Your task to perform on an android device: toggle location history Image 0: 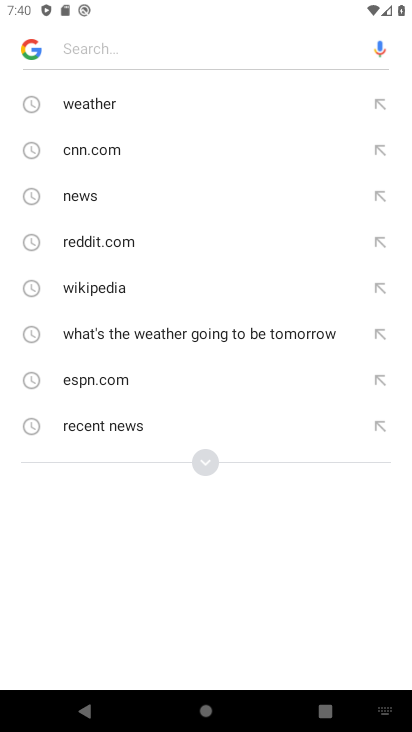
Step 0: press home button
Your task to perform on an android device: toggle location history Image 1: 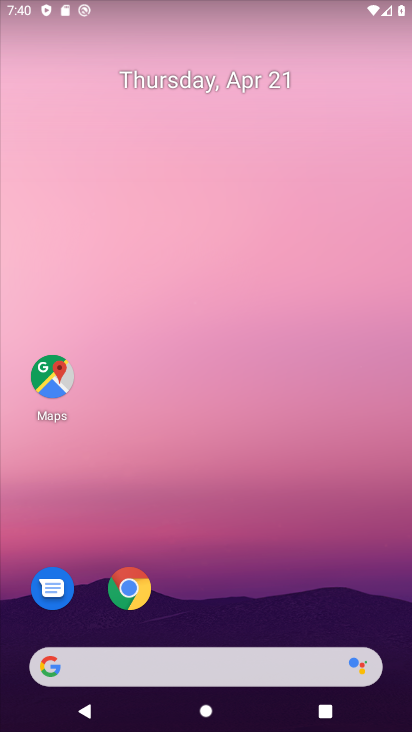
Step 1: drag from (341, 610) to (253, 1)
Your task to perform on an android device: toggle location history Image 2: 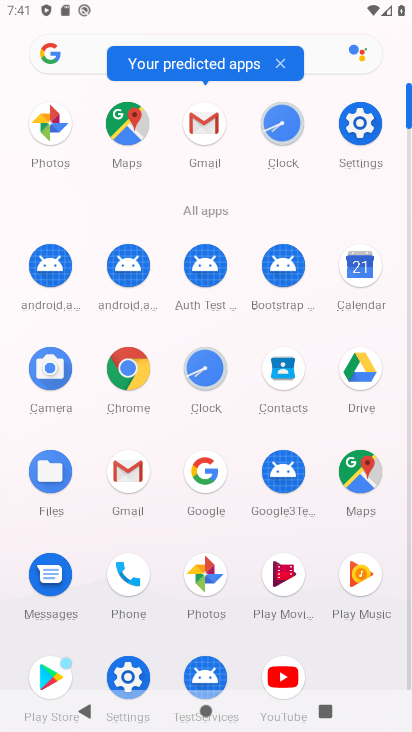
Step 2: click (121, 678)
Your task to perform on an android device: toggle location history Image 3: 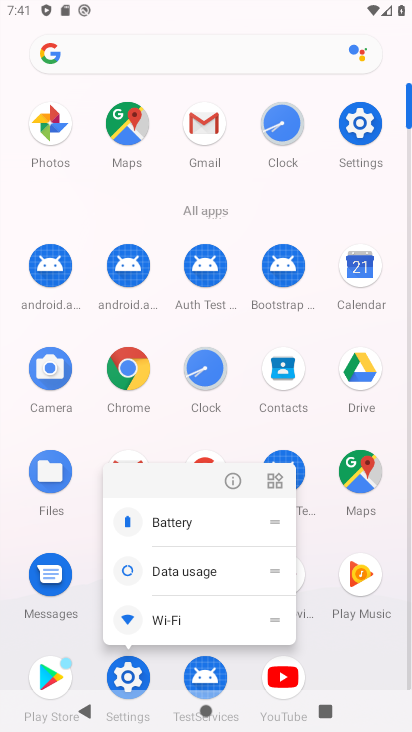
Step 3: click (128, 670)
Your task to perform on an android device: toggle location history Image 4: 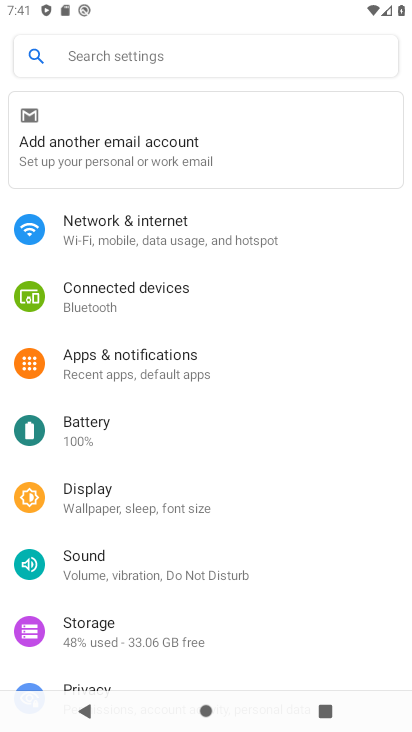
Step 4: drag from (224, 483) to (209, 190)
Your task to perform on an android device: toggle location history Image 5: 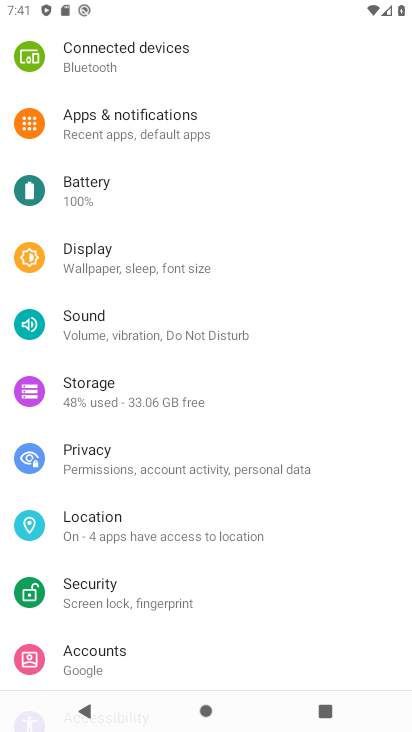
Step 5: click (111, 533)
Your task to perform on an android device: toggle location history Image 6: 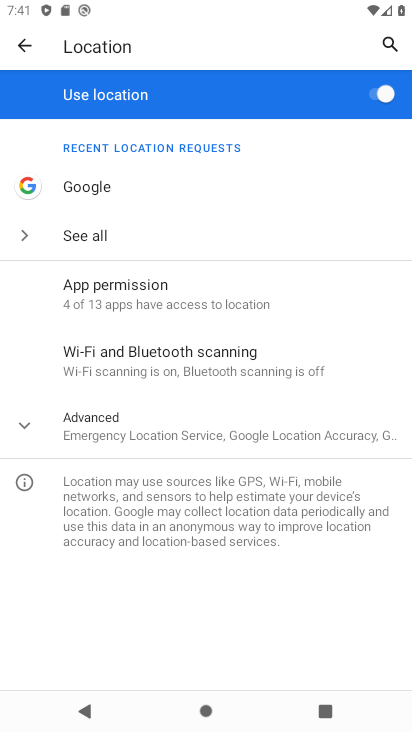
Step 6: click (114, 440)
Your task to perform on an android device: toggle location history Image 7: 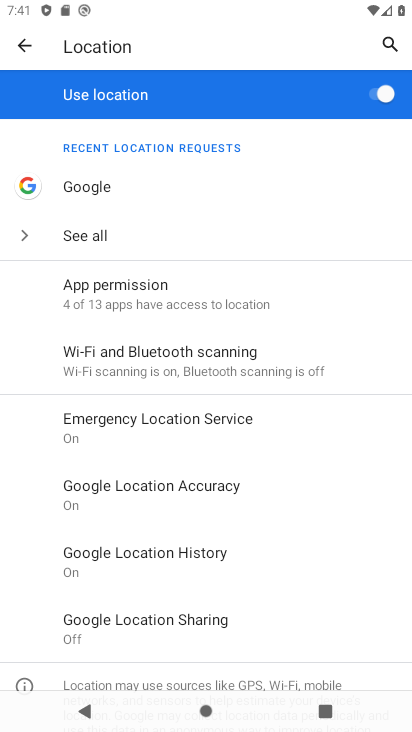
Step 7: click (169, 556)
Your task to perform on an android device: toggle location history Image 8: 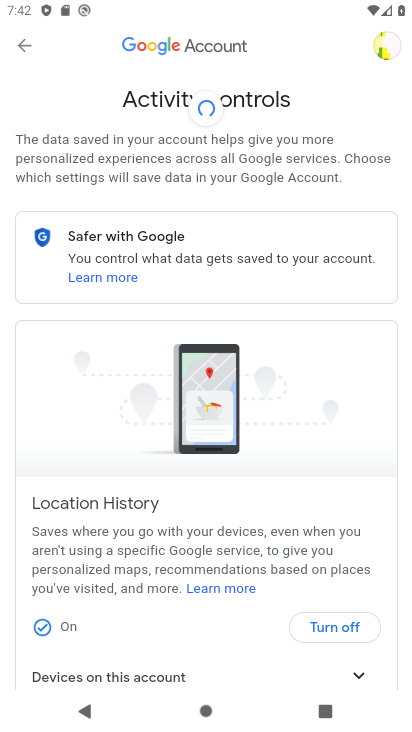
Step 8: click (342, 626)
Your task to perform on an android device: toggle location history Image 9: 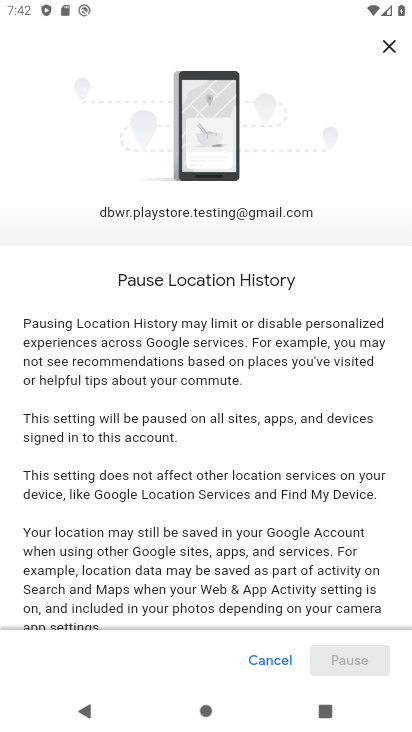
Step 9: drag from (332, 582) to (319, 248)
Your task to perform on an android device: toggle location history Image 10: 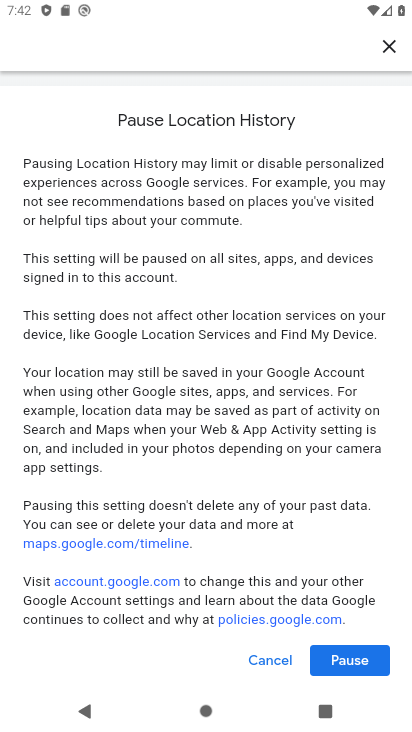
Step 10: click (351, 666)
Your task to perform on an android device: toggle location history Image 11: 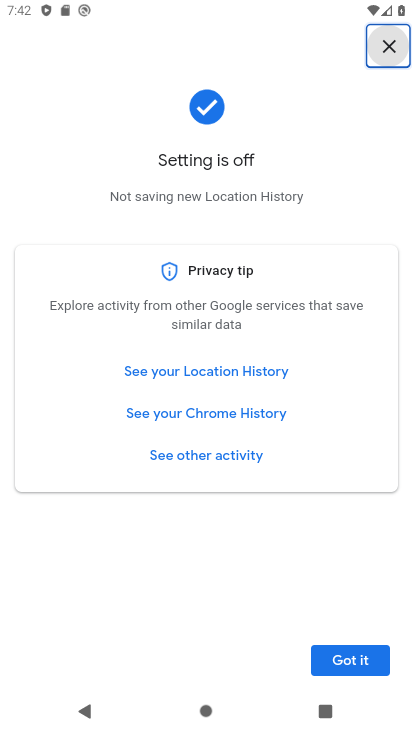
Step 11: click (350, 665)
Your task to perform on an android device: toggle location history Image 12: 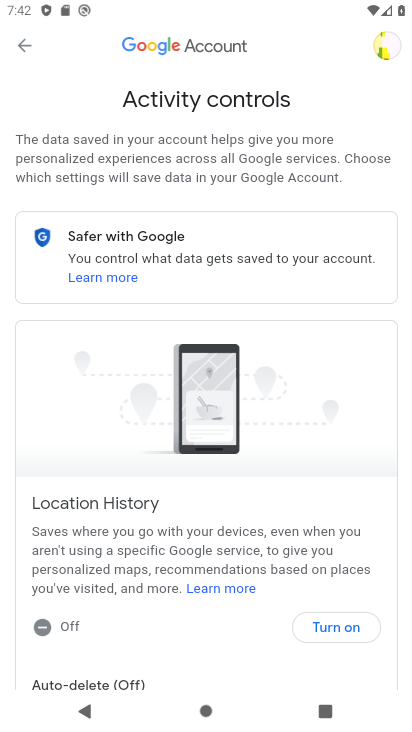
Step 12: task complete